Your task to perform on an android device: move a message to another label in the gmail app Image 0: 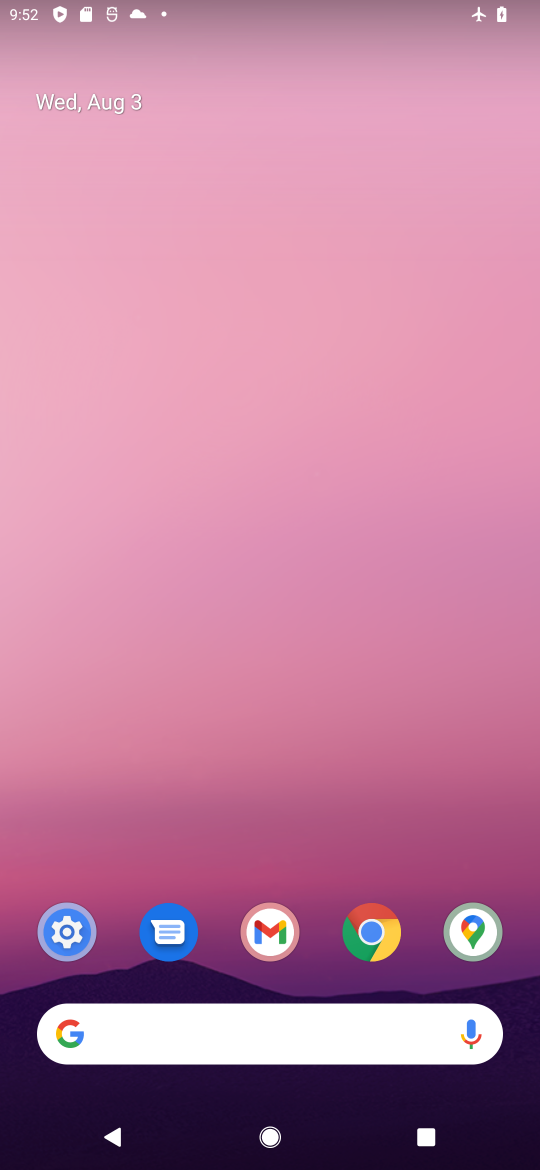
Step 0: click (256, 915)
Your task to perform on an android device: move a message to another label in the gmail app Image 1: 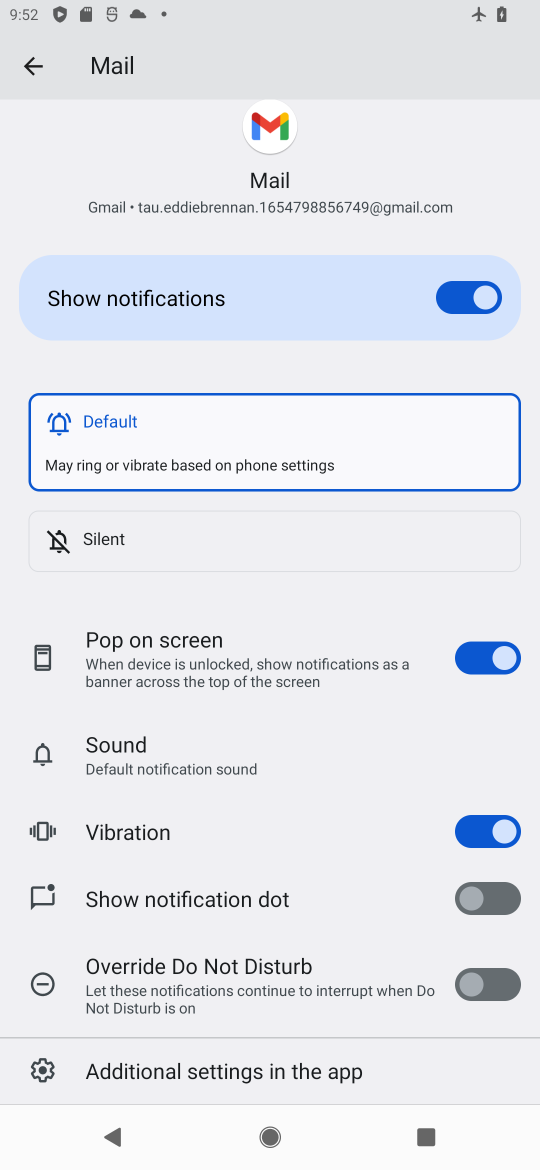
Step 1: click (28, 57)
Your task to perform on an android device: move a message to another label in the gmail app Image 2: 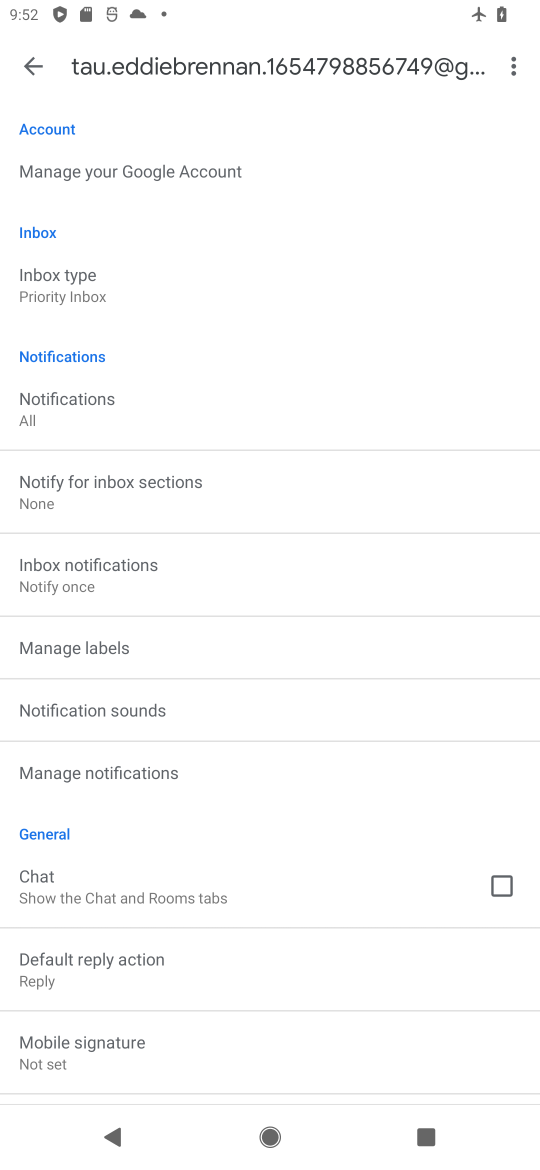
Step 2: click (19, 83)
Your task to perform on an android device: move a message to another label in the gmail app Image 3: 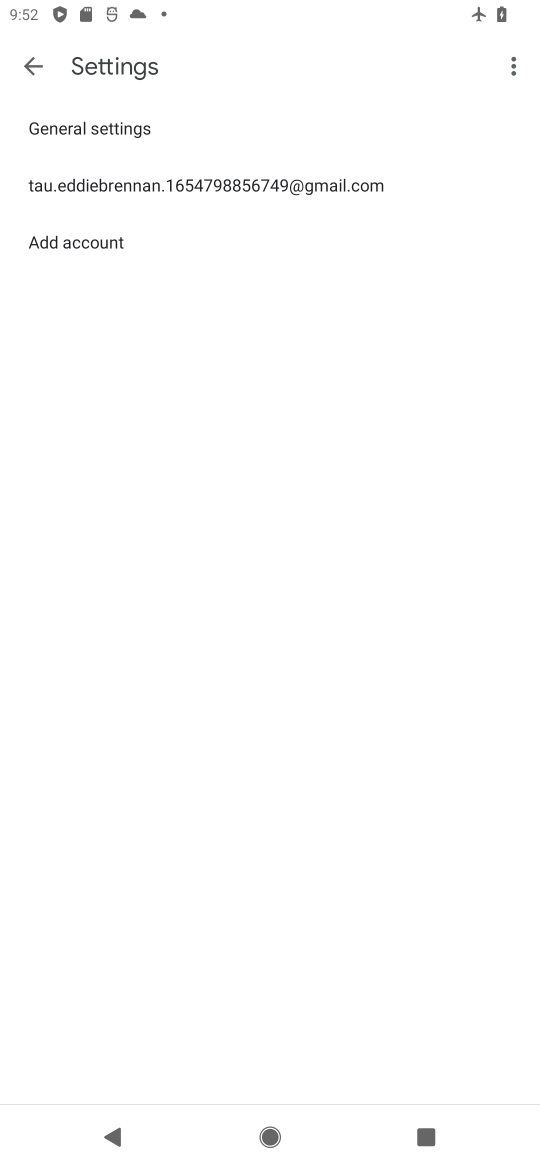
Step 3: click (29, 67)
Your task to perform on an android device: move a message to another label in the gmail app Image 4: 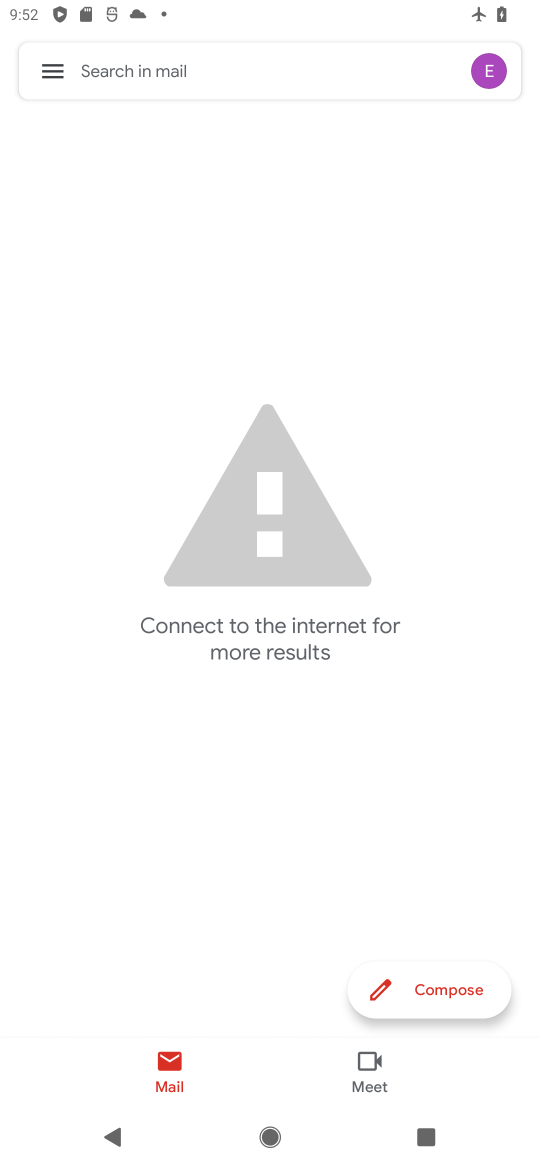
Step 4: click (50, 79)
Your task to perform on an android device: move a message to another label in the gmail app Image 5: 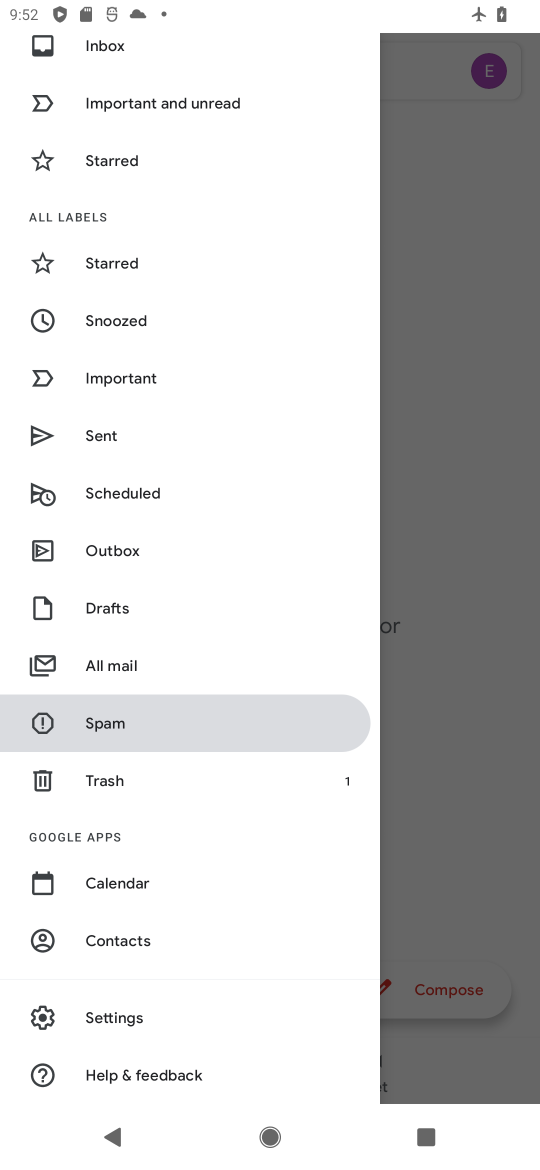
Step 5: click (50, 79)
Your task to perform on an android device: move a message to another label in the gmail app Image 6: 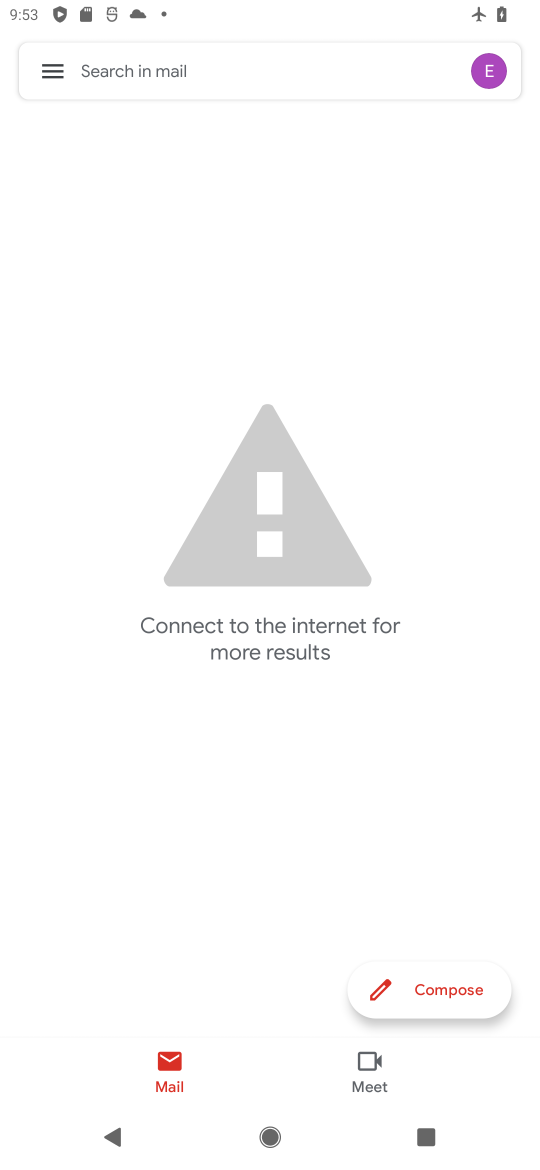
Step 6: click (133, 676)
Your task to perform on an android device: move a message to another label in the gmail app Image 7: 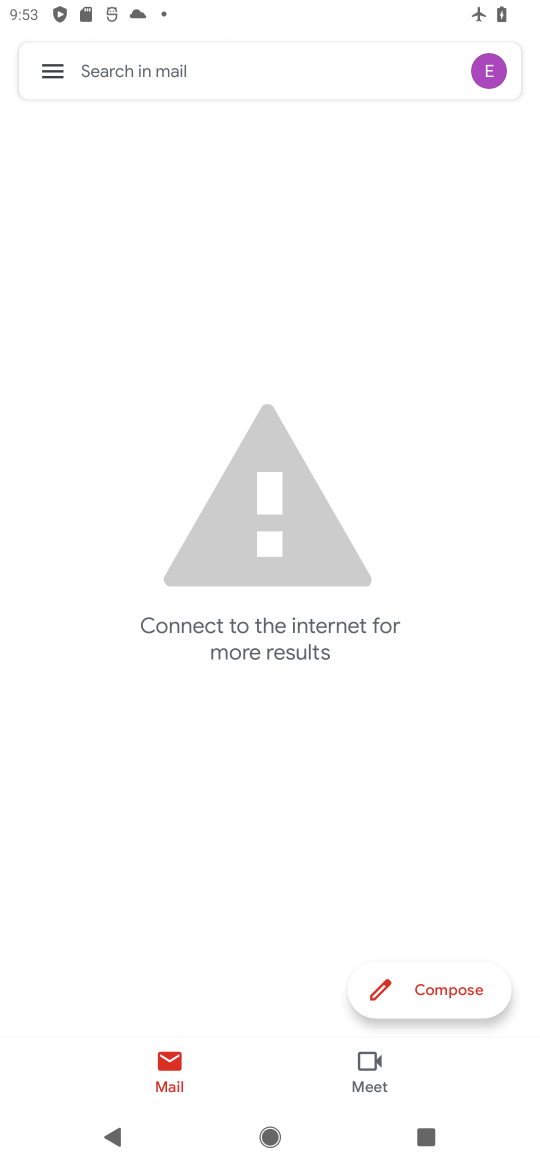
Step 7: click (50, 60)
Your task to perform on an android device: move a message to another label in the gmail app Image 8: 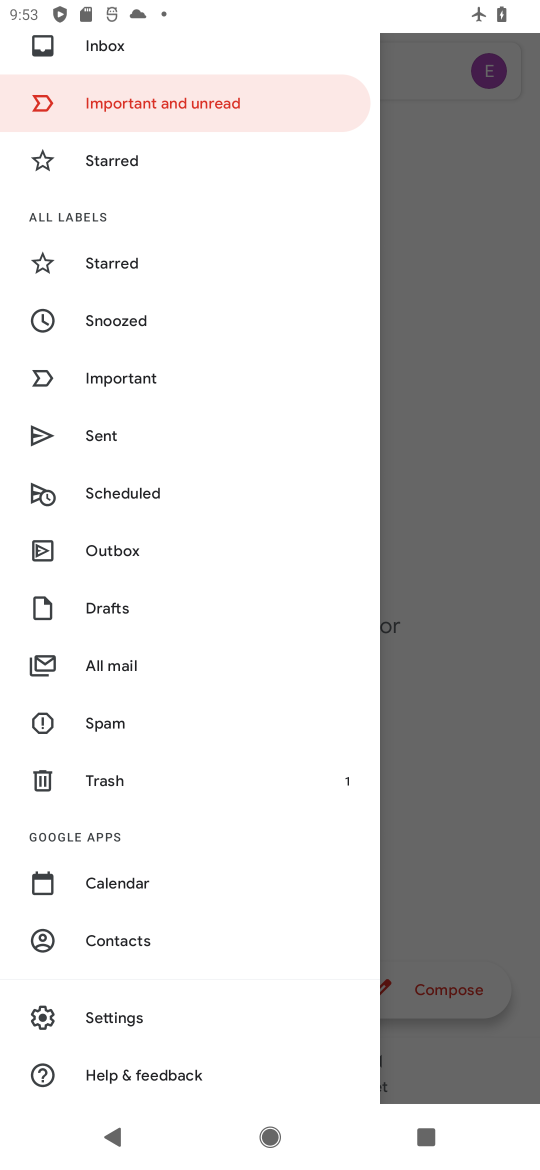
Step 8: click (126, 671)
Your task to perform on an android device: move a message to another label in the gmail app Image 9: 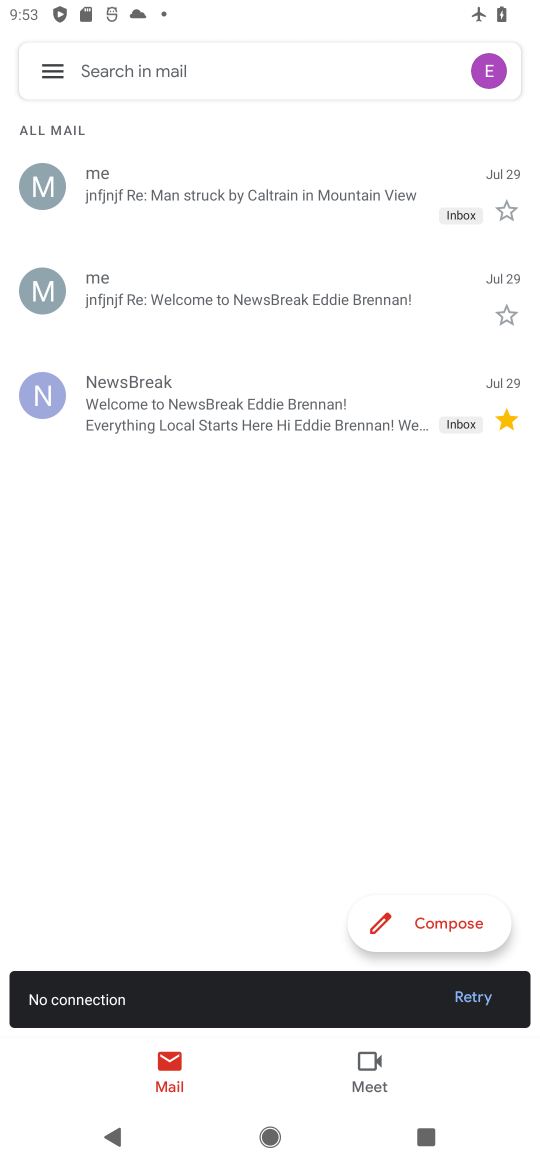
Step 9: click (313, 394)
Your task to perform on an android device: move a message to another label in the gmail app Image 10: 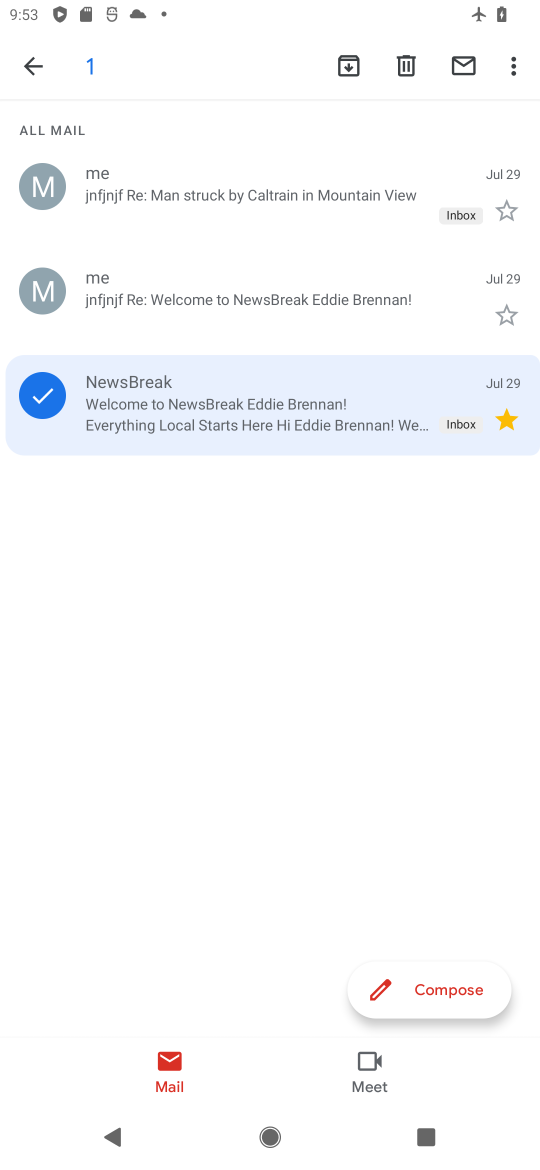
Step 10: click (502, 67)
Your task to perform on an android device: move a message to another label in the gmail app Image 11: 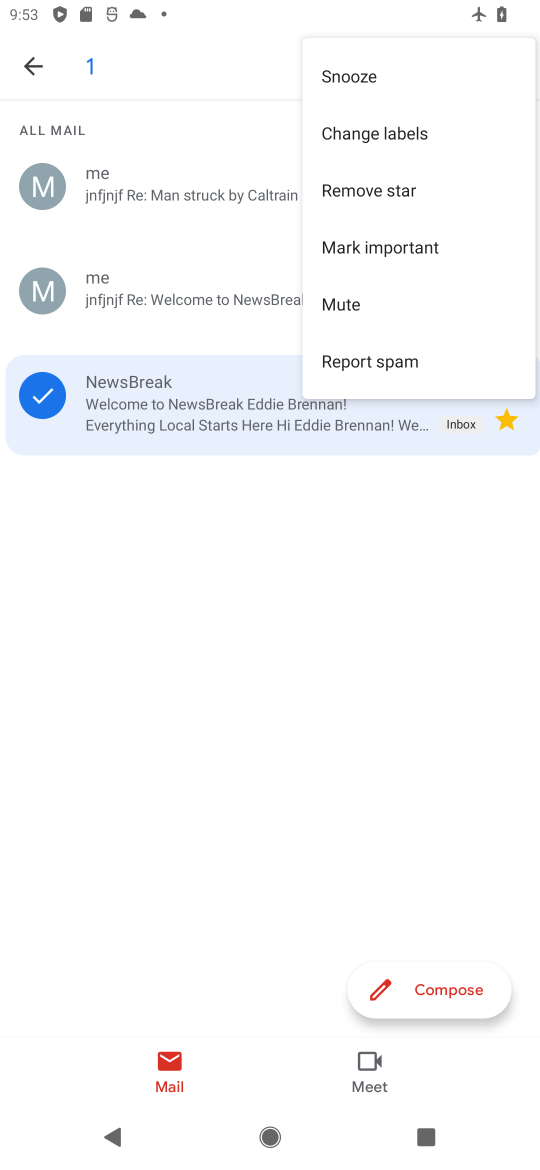
Step 11: task complete